Your task to perform on an android device: What's the price of the Galaxy phone on eBay? Image 0: 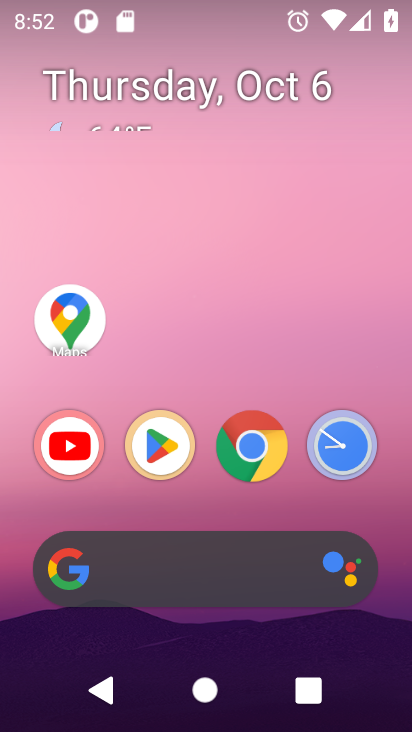
Step 0: click (230, 572)
Your task to perform on an android device: What's the price of the Galaxy phone on eBay? Image 1: 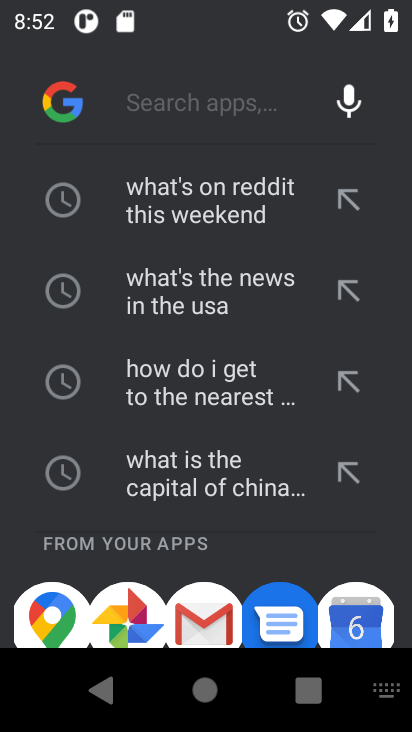
Step 1: type "What's the price of the Galaxy phone on eBay?"
Your task to perform on an android device: What's the price of the Galaxy phone on eBay? Image 2: 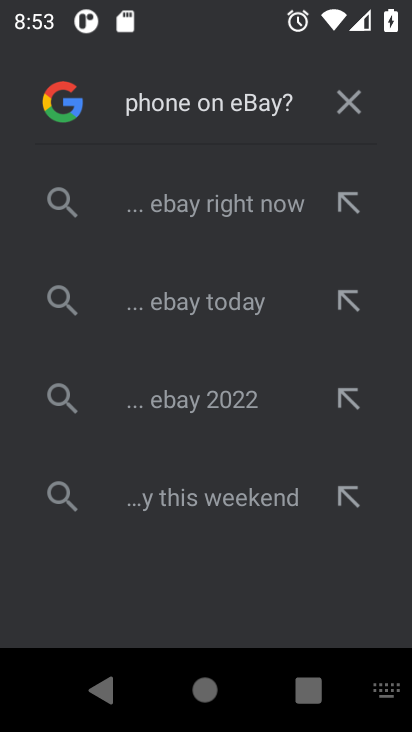
Step 2: task complete